Your task to perform on an android device: add a label to a message in the gmail app Image 0: 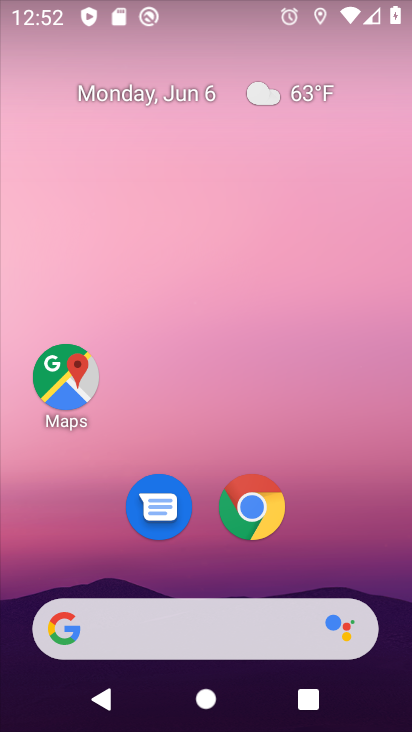
Step 0: drag from (231, 425) to (256, 0)
Your task to perform on an android device: add a label to a message in the gmail app Image 1: 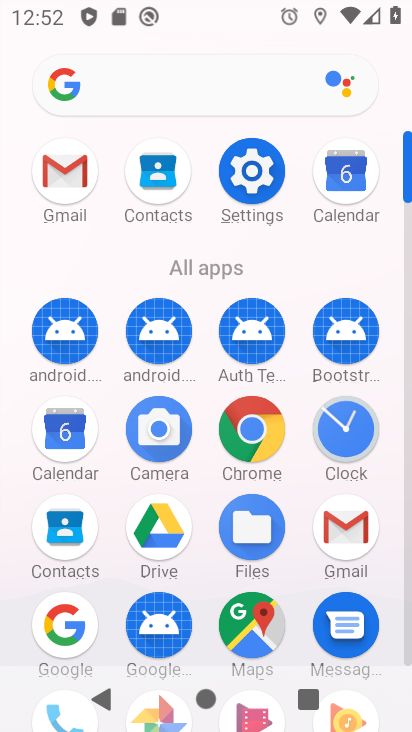
Step 1: click (84, 172)
Your task to perform on an android device: add a label to a message in the gmail app Image 2: 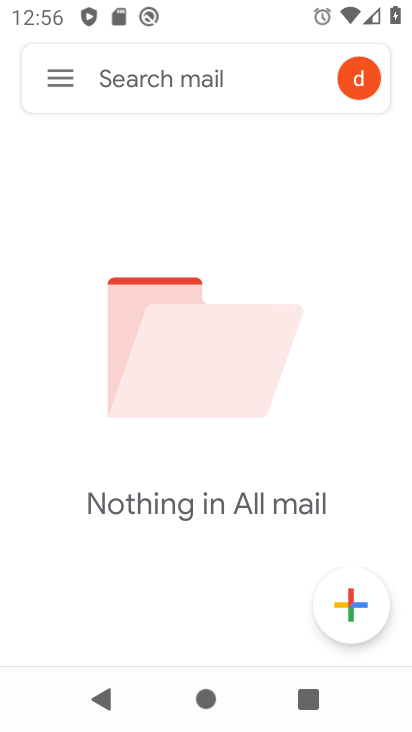
Step 2: task complete